Your task to perform on an android device: turn on showing notifications on the lock screen Image 0: 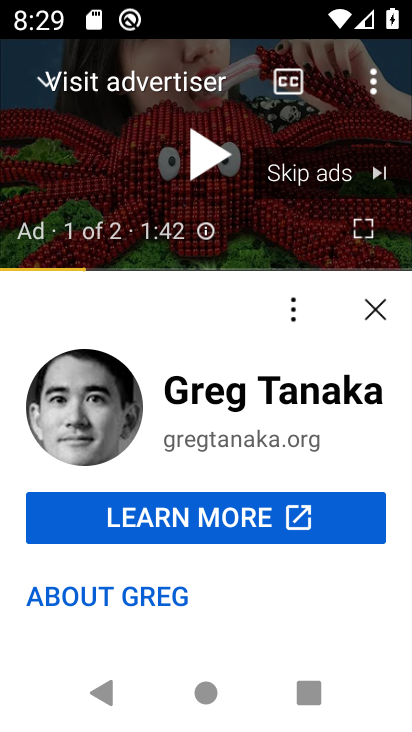
Step 0: press home button
Your task to perform on an android device: turn on showing notifications on the lock screen Image 1: 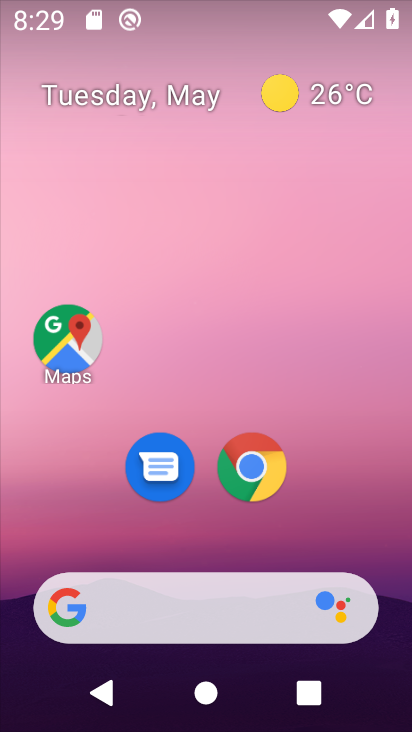
Step 1: drag from (397, 702) to (396, 131)
Your task to perform on an android device: turn on showing notifications on the lock screen Image 2: 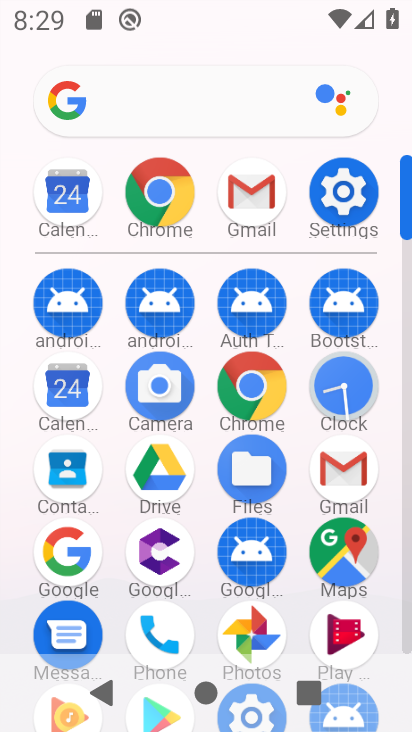
Step 2: click (355, 188)
Your task to perform on an android device: turn on showing notifications on the lock screen Image 3: 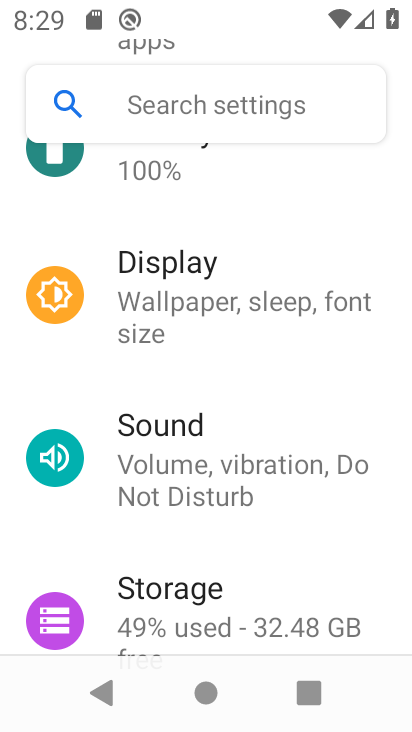
Step 3: drag from (333, 152) to (346, 533)
Your task to perform on an android device: turn on showing notifications on the lock screen Image 4: 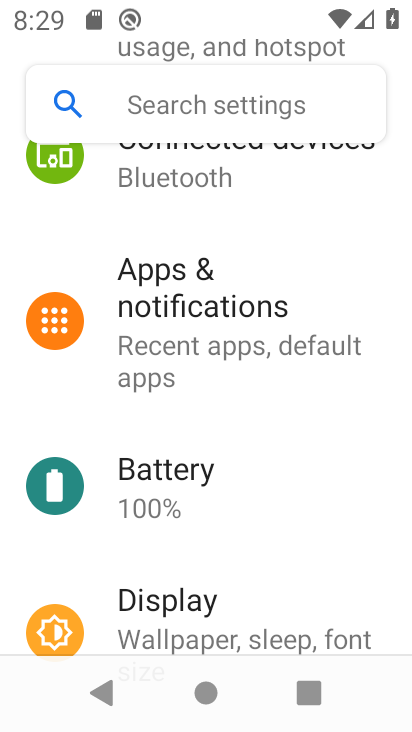
Step 4: click (190, 280)
Your task to perform on an android device: turn on showing notifications on the lock screen Image 5: 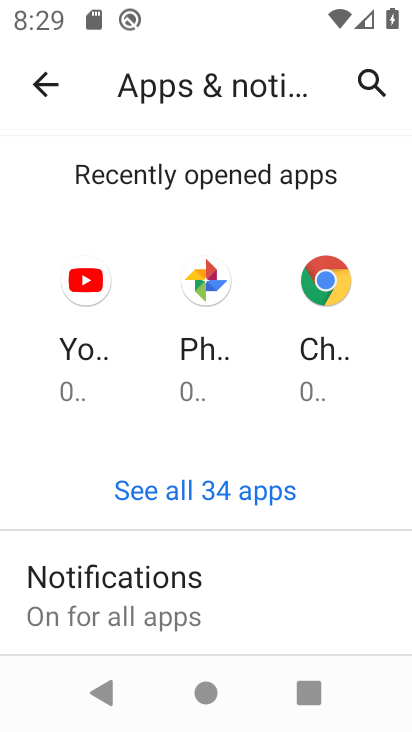
Step 5: click (150, 594)
Your task to perform on an android device: turn on showing notifications on the lock screen Image 6: 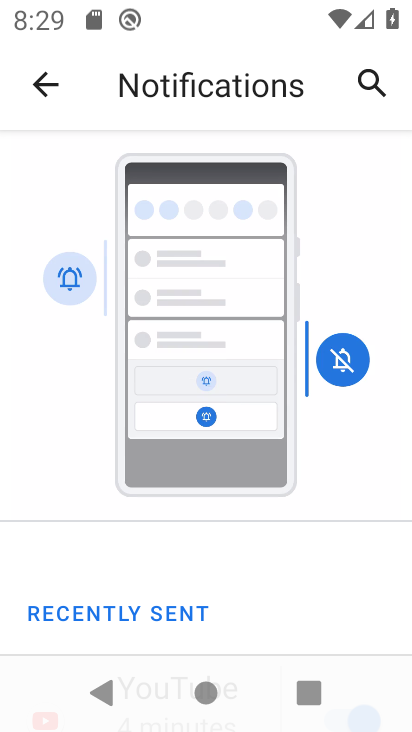
Step 6: drag from (266, 633) to (263, 147)
Your task to perform on an android device: turn on showing notifications on the lock screen Image 7: 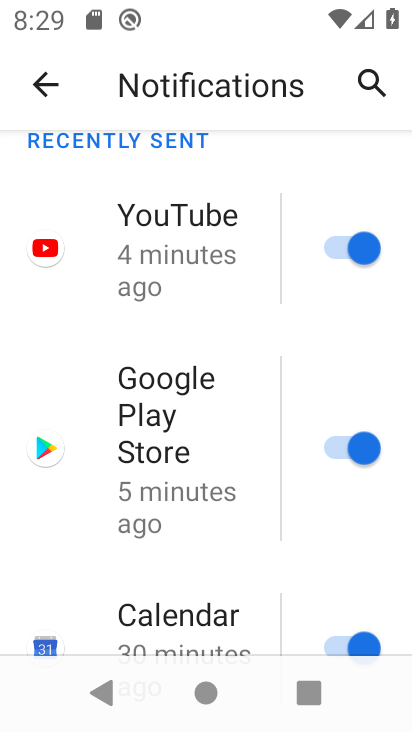
Step 7: drag from (262, 637) to (255, 100)
Your task to perform on an android device: turn on showing notifications on the lock screen Image 8: 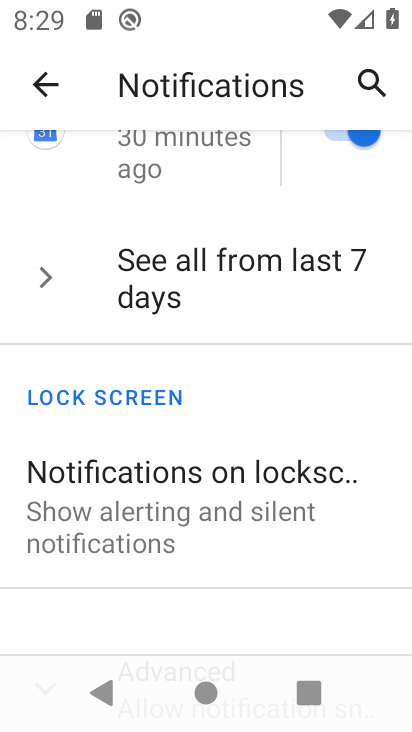
Step 8: click (189, 495)
Your task to perform on an android device: turn on showing notifications on the lock screen Image 9: 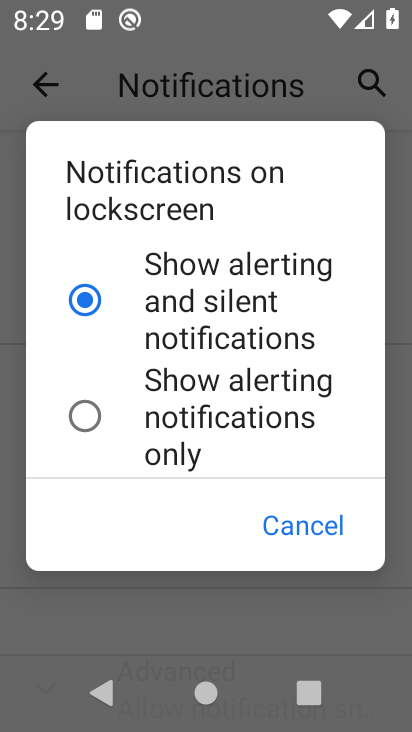
Step 9: click (126, 247)
Your task to perform on an android device: turn on showing notifications on the lock screen Image 10: 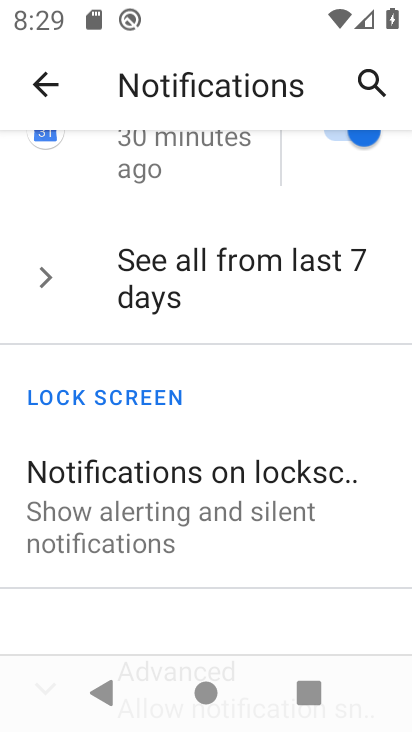
Step 10: click (126, 464)
Your task to perform on an android device: turn on showing notifications on the lock screen Image 11: 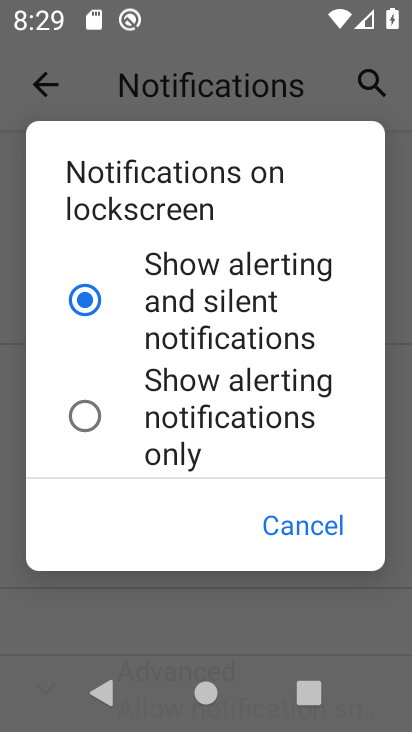
Step 11: task complete